Your task to perform on an android device: set the stopwatch Image 0: 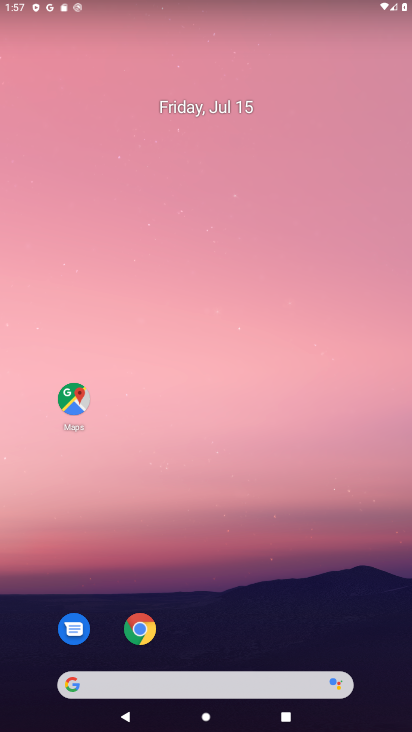
Step 0: press home button
Your task to perform on an android device: set the stopwatch Image 1: 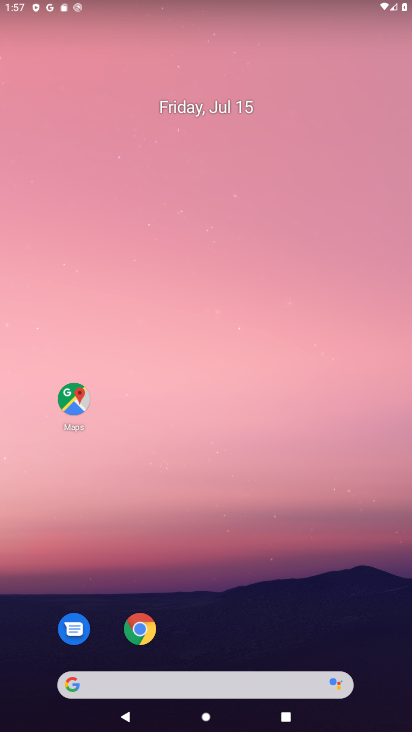
Step 1: click (129, 628)
Your task to perform on an android device: set the stopwatch Image 2: 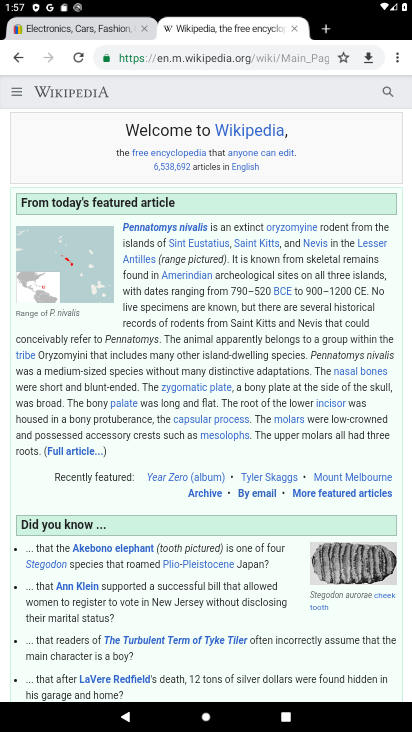
Step 2: press home button
Your task to perform on an android device: set the stopwatch Image 3: 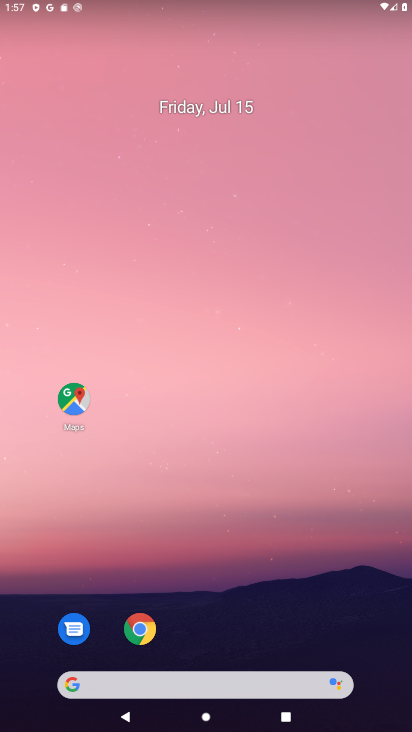
Step 3: drag from (229, 459) to (280, 39)
Your task to perform on an android device: set the stopwatch Image 4: 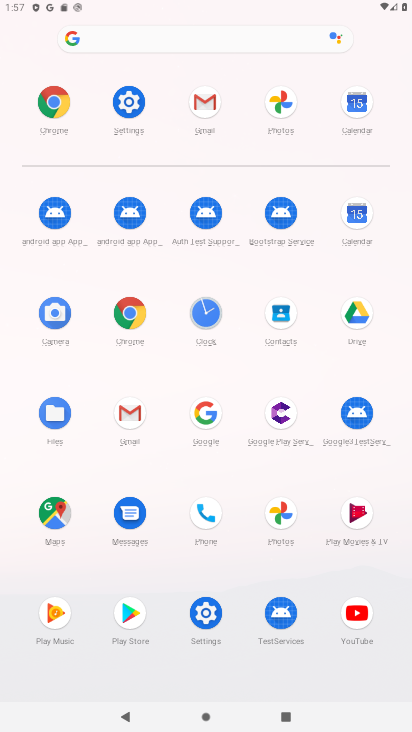
Step 4: click (210, 320)
Your task to perform on an android device: set the stopwatch Image 5: 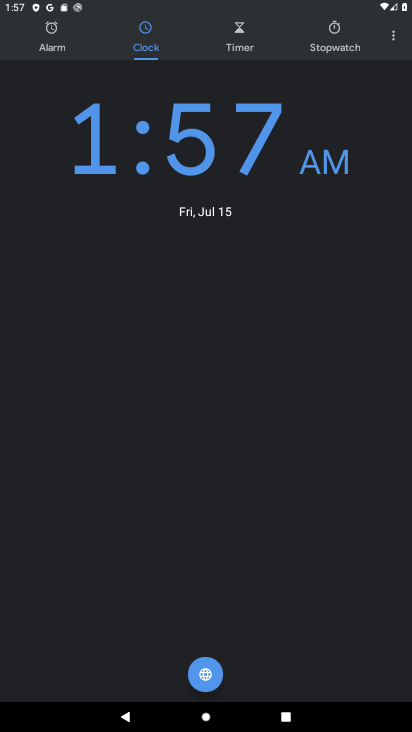
Step 5: click (337, 37)
Your task to perform on an android device: set the stopwatch Image 6: 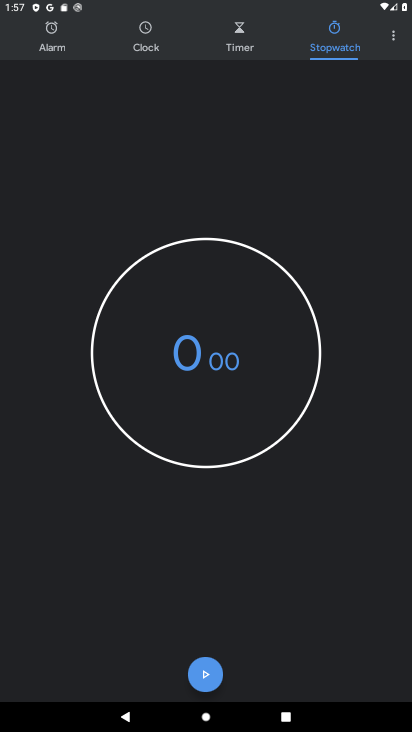
Step 6: click (215, 674)
Your task to perform on an android device: set the stopwatch Image 7: 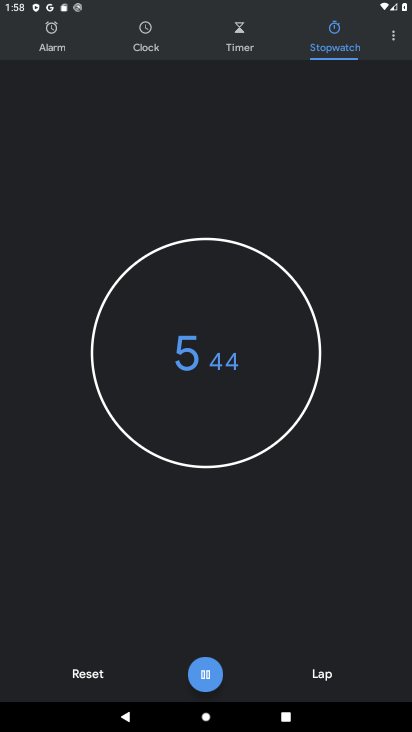
Step 7: click (202, 674)
Your task to perform on an android device: set the stopwatch Image 8: 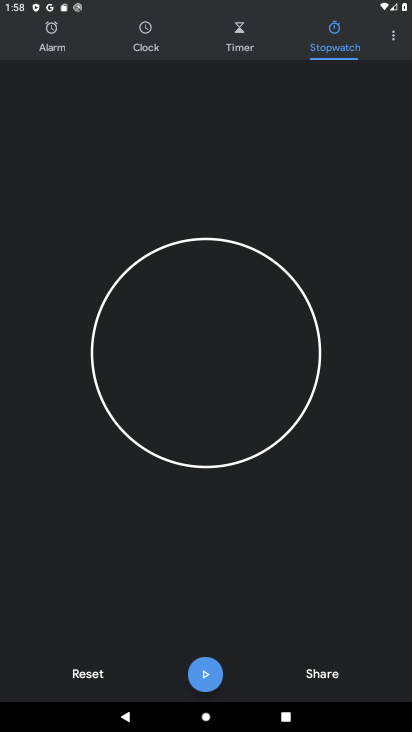
Step 8: task complete